Your task to perform on an android device: open chrome and create a bookmark for the current page Image 0: 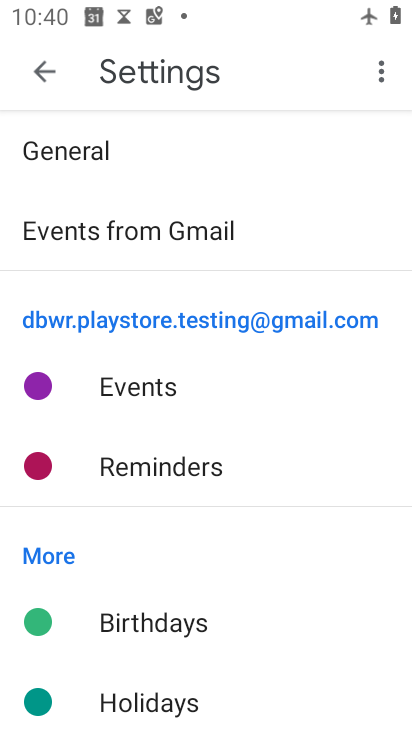
Step 0: press home button
Your task to perform on an android device: open chrome and create a bookmark for the current page Image 1: 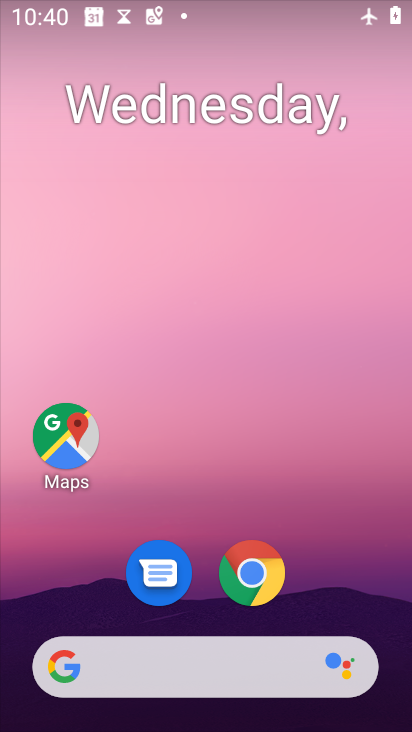
Step 1: drag from (332, 591) to (328, 270)
Your task to perform on an android device: open chrome and create a bookmark for the current page Image 2: 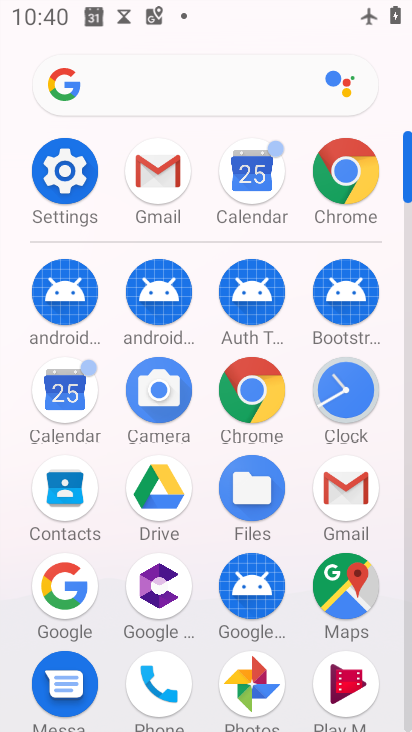
Step 2: click (335, 164)
Your task to perform on an android device: open chrome and create a bookmark for the current page Image 3: 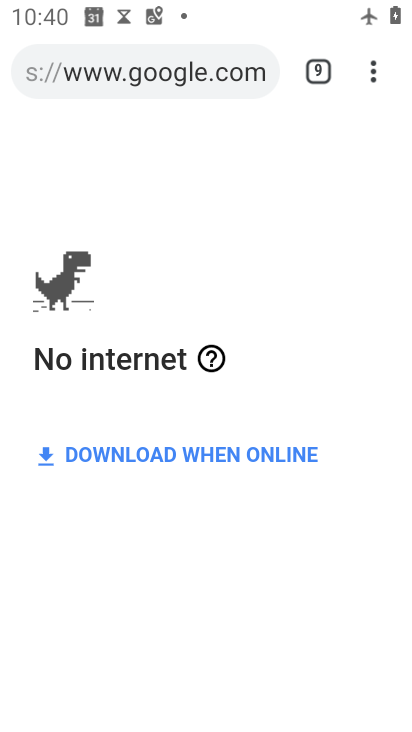
Step 3: click (363, 70)
Your task to perform on an android device: open chrome and create a bookmark for the current page Image 4: 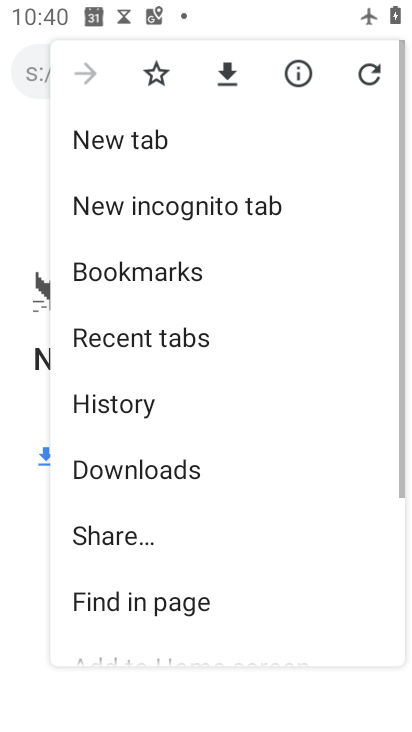
Step 4: click (154, 69)
Your task to perform on an android device: open chrome and create a bookmark for the current page Image 5: 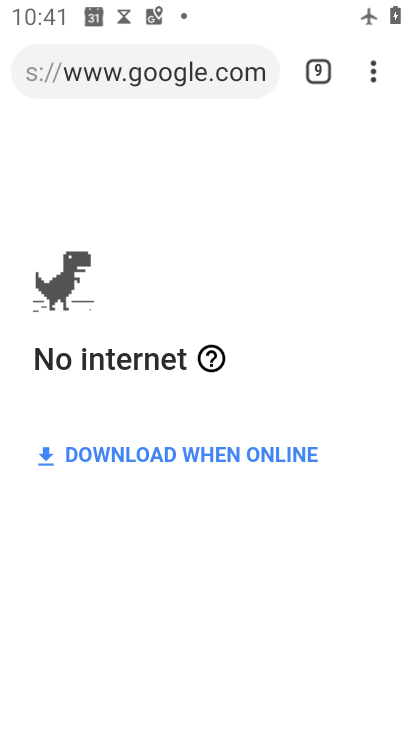
Step 5: click (379, 66)
Your task to perform on an android device: open chrome and create a bookmark for the current page Image 6: 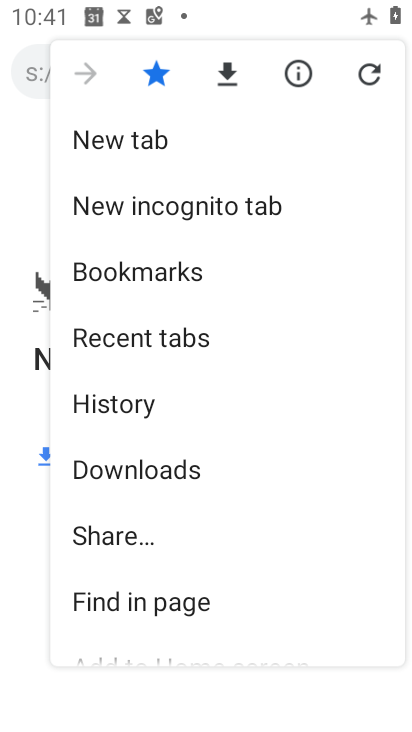
Step 6: click (19, 161)
Your task to perform on an android device: open chrome and create a bookmark for the current page Image 7: 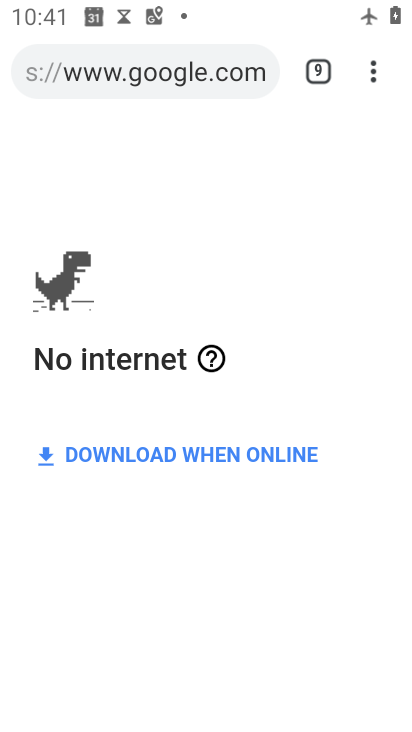
Step 7: click (367, 77)
Your task to perform on an android device: open chrome and create a bookmark for the current page Image 8: 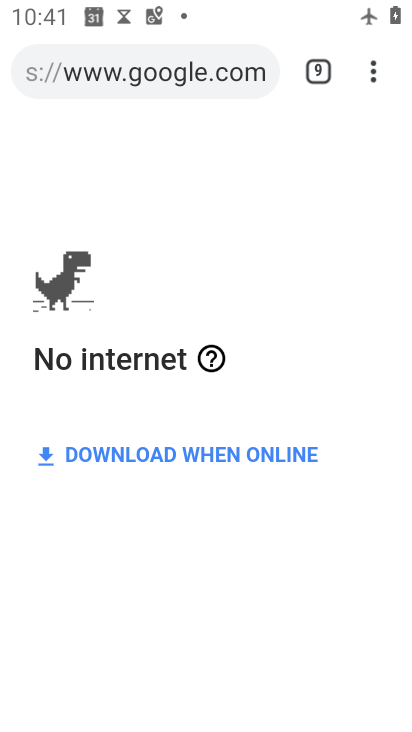
Step 8: task complete